Your task to perform on an android device: View the shopping cart on bestbuy. Add macbook air to the cart on bestbuy, then select checkout. Image 0: 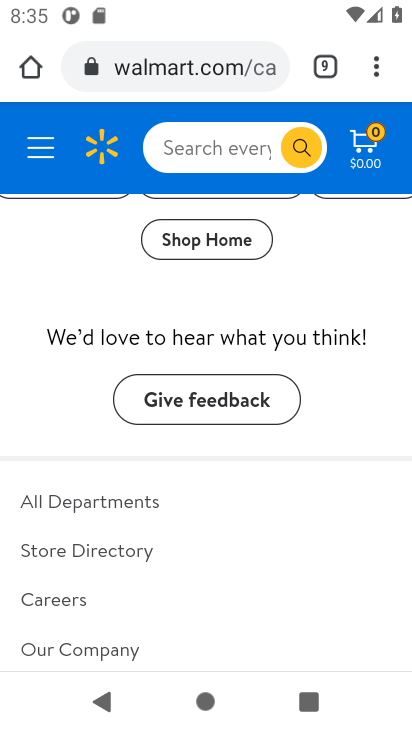
Step 0: click (222, 60)
Your task to perform on an android device: View the shopping cart on bestbuy. Add macbook air to the cart on bestbuy, then select checkout. Image 1: 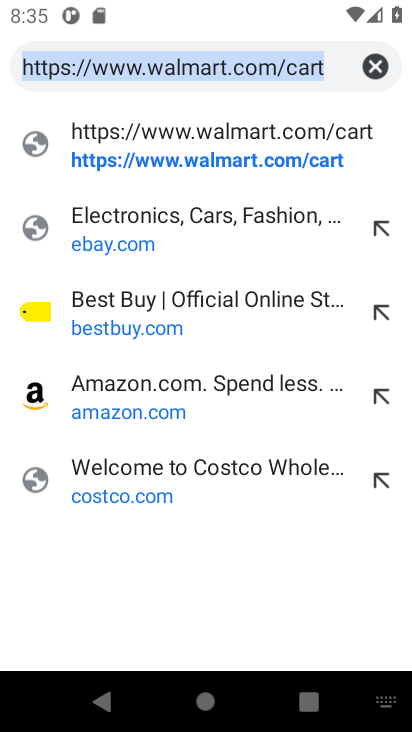
Step 1: click (156, 333)
Your task to perform on an android device: View the shopping cart on bestbuy. Add macbook air to the cart on bestbuy, then select checkout. Image 2: 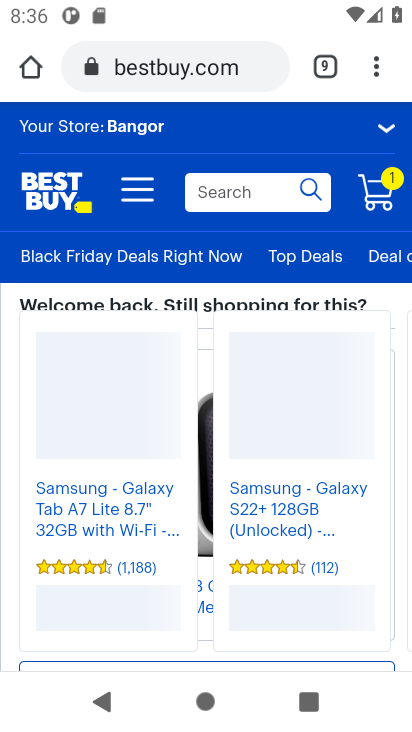
Step 2: click (373, 196)
Your task to perform on an android device: View the shopping cart on bestbuy. Add macbook air to the cart on bestbuy, then select checkout. Image 3: 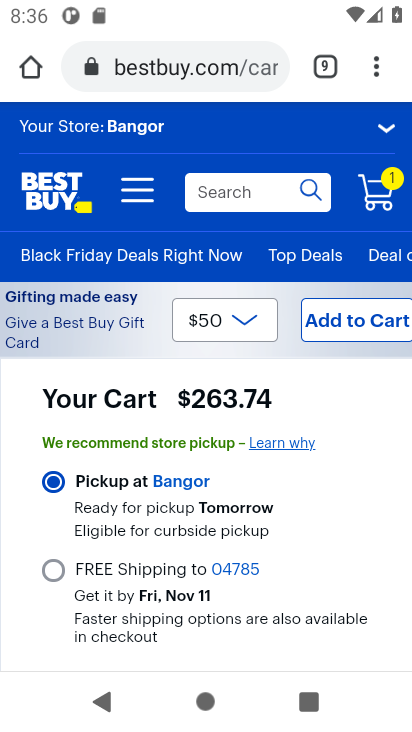
Step 3: click (248, 206)
Your task to perform on an android device: View the shopping cart on bestbuy. Add macbook air to the cart on bestbuy, then select checkout. Image 4: 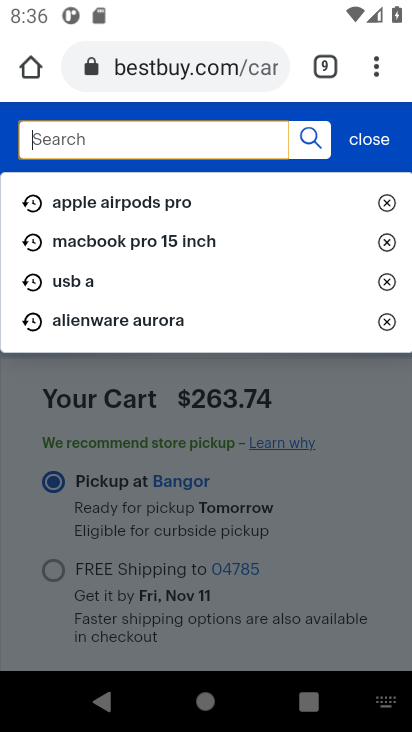
Step 4: type "macbook air"
Your task to perform on an android device: View the shopping cart on bestbuy. Add macbook air to the cart on bestbuy, then select checkout. Image 5: 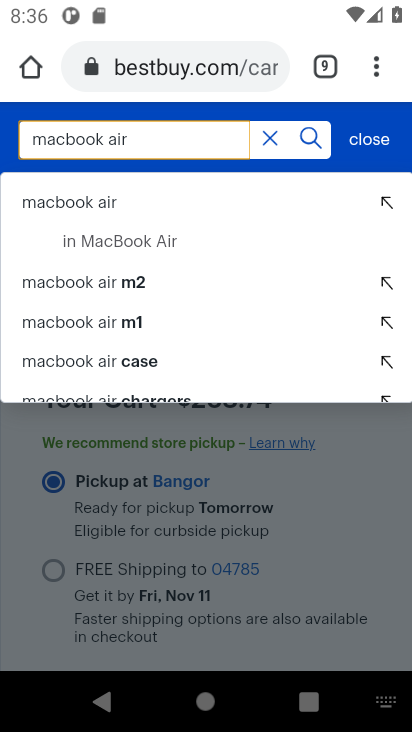
Step 5: click (76, 197)
Your task to perform on an android device: View the shopping cart on bestbuy. Add macbook air to the cart on bestbuy, then select checkout. Image 6: 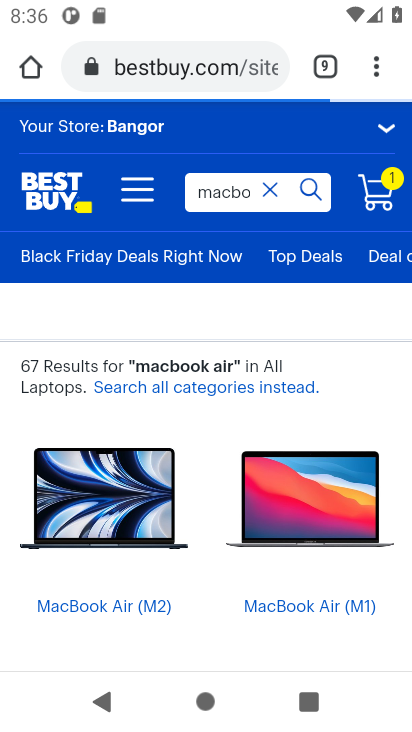
Step 6: drag from (240, 567) to (254, 298)
Your task to perform on an android device: View the shopping cart on bestbuy. Add macbook air to the cart on bestbuy, then select checkout. Image 7: 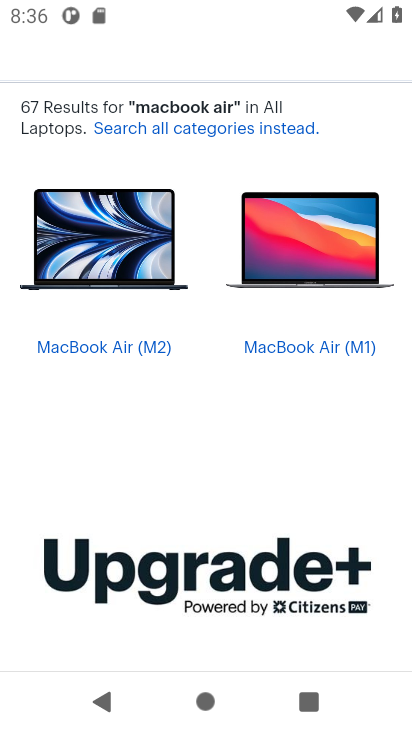
Step 7: drag from (176, 540) to (170, 205)
Your task to perform on an android device: View the shopping cart on bestbuy. Add macbook air to the cart on bestbuy, then select checkout. Image 8: 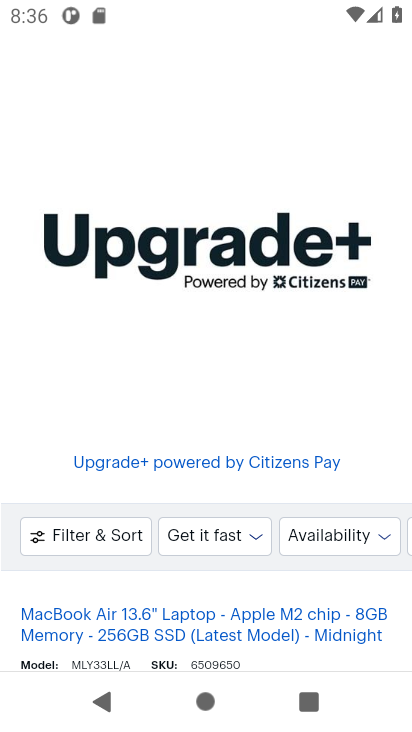
Step 8: drag from (167, 568) to (149, 230)
Your task to perform on an android device: View the shopping cart on bestbuy. Add macbook air to the cart on bestbuy, then select checkout. Image 9: 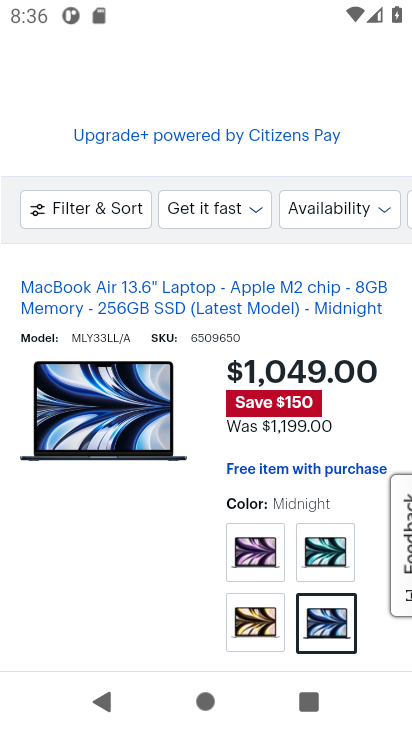
Step 9: drag from (150, 562) to (138, 340)
Your task to perform on an android device: View the shopping cart on bestbuy. Add macbook air to the cart on bestbuy, then select checkout. Image 10: 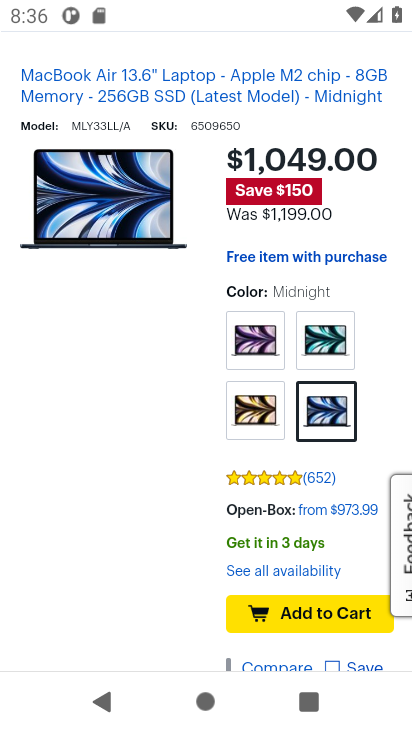
Step 10: click (285, 607)
Your task to perform on an android device: View the shopping cart on bestbuy. Add macbook air to the cart on bestbuy, then select checkout. Image 11: 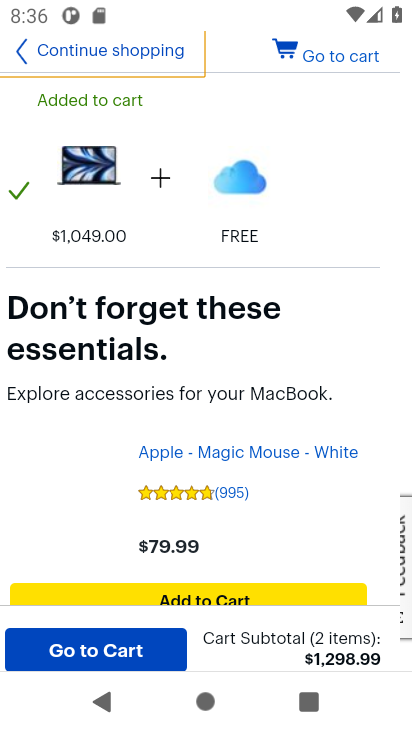
Step 11: click (322, 59)
Your task to perform on an android device: View the shopping cart on bestbuy. Add macbook air to the cart on bestbuy, then select checkout. Image 12: 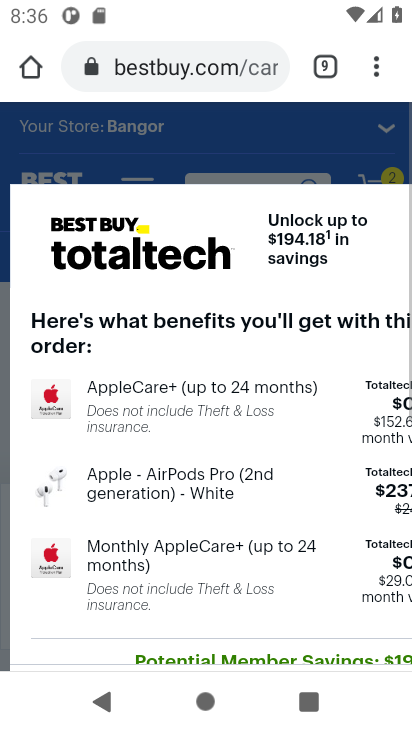
Step 12: click (226, 586)
Your task to perform on an android device: View the shopping cart on bestbuy. Add macbook air to the cart on bestbuy, then select checkout. Image 13: 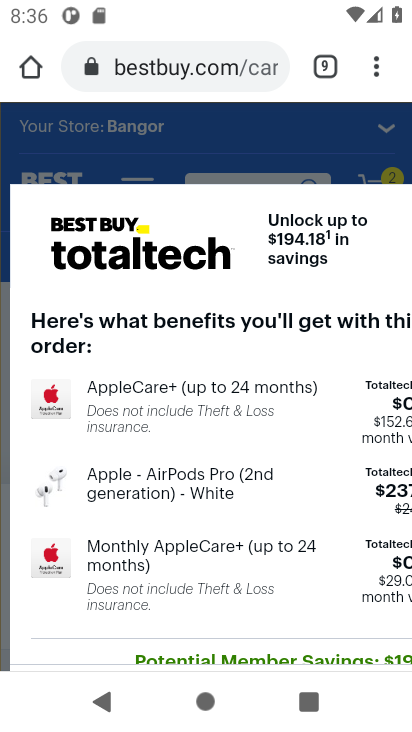
Step 13: drag from (225, 587) to (272, 104)
Your task to perform on an android device: View the shopping cart on bestbuy. Add macbook air to the cart on bestbuy, then select checkout. Image 14: 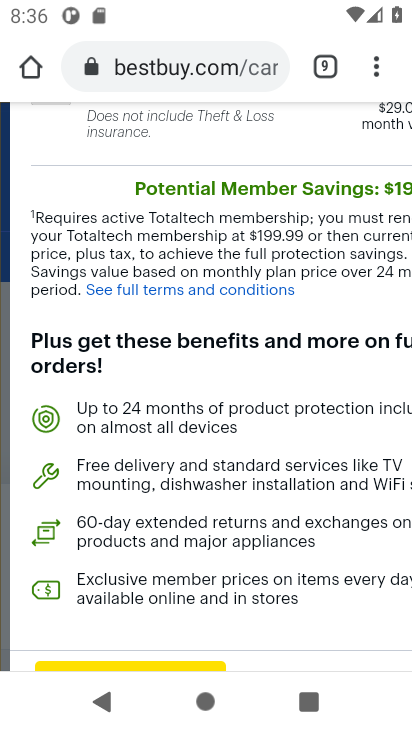
Step 14: drag from (229, 546) to (250, 219)
Your task to perform on an android device: View the shopping cart on bestbuy. Add macbook air to the cart on bestbuy, then select checkout. Image 15: 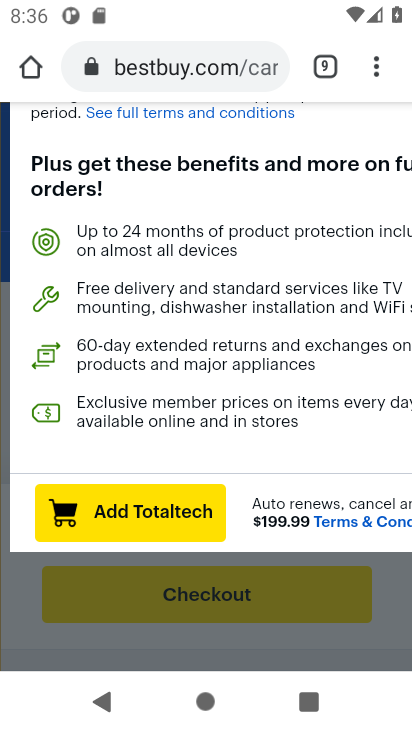
Step 15: click (219, 587)
Your task to perform on an android device: View the shopping cart on bestbuy. Add macbook air to the cart on bestbuy, then select checkout. Image 16: 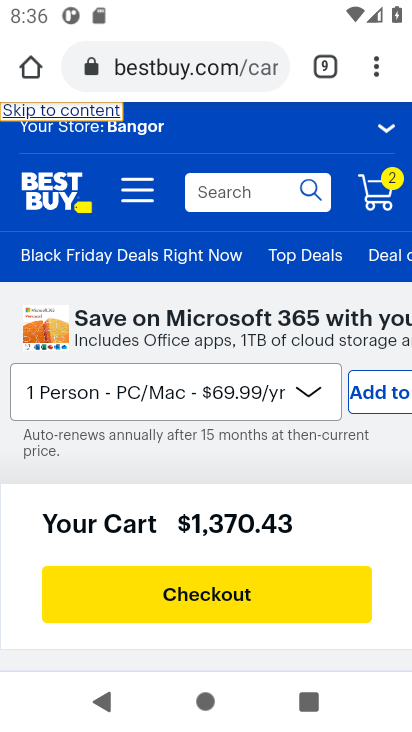
Step 16: click (219, 587)
Your task to perform on an android device: View the shopping cart on bestbuy. Add macbook air to the cart on bestbuy, then select checkout. Image 17: 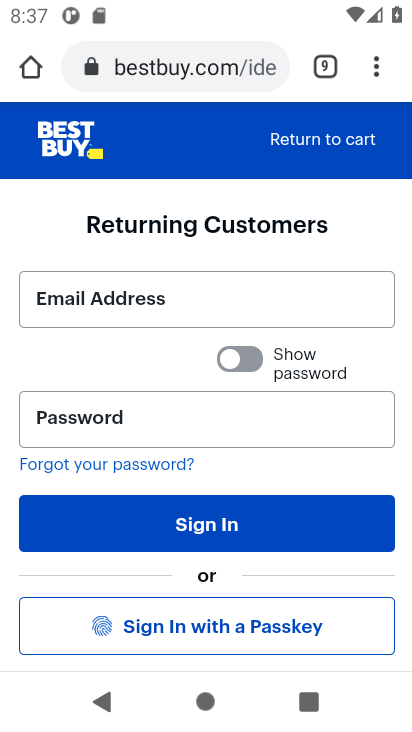
Step 17: task complete